Your task to perform on an android device: open app "Roku - Official Remote Control" Image 0: 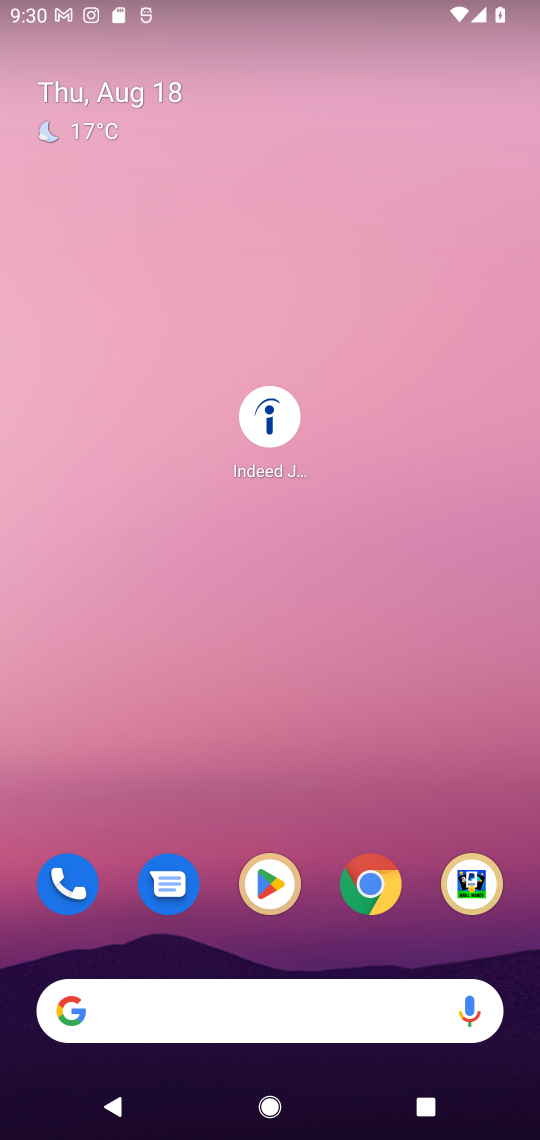
Step 0: drag from (241, 1023) to (295, 21)
Your task to perform on an android device: open app "Roku - Official Remote Control" Image 1: 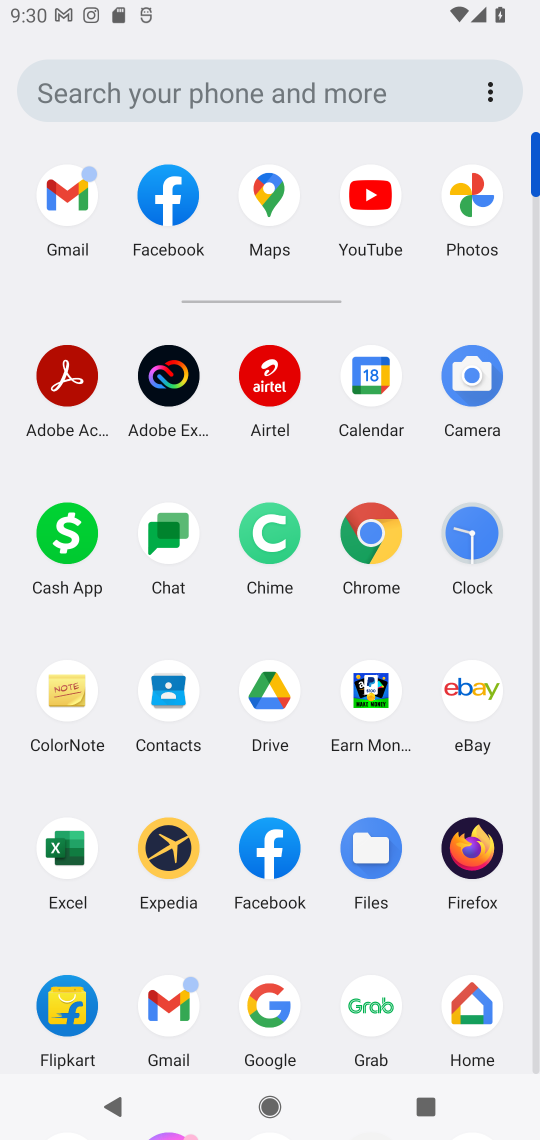
Step 1: drag from (217, 798) to (249, 378)
Your task to perform on an android device: open app "Roku - Official Remote Control" Image 2: 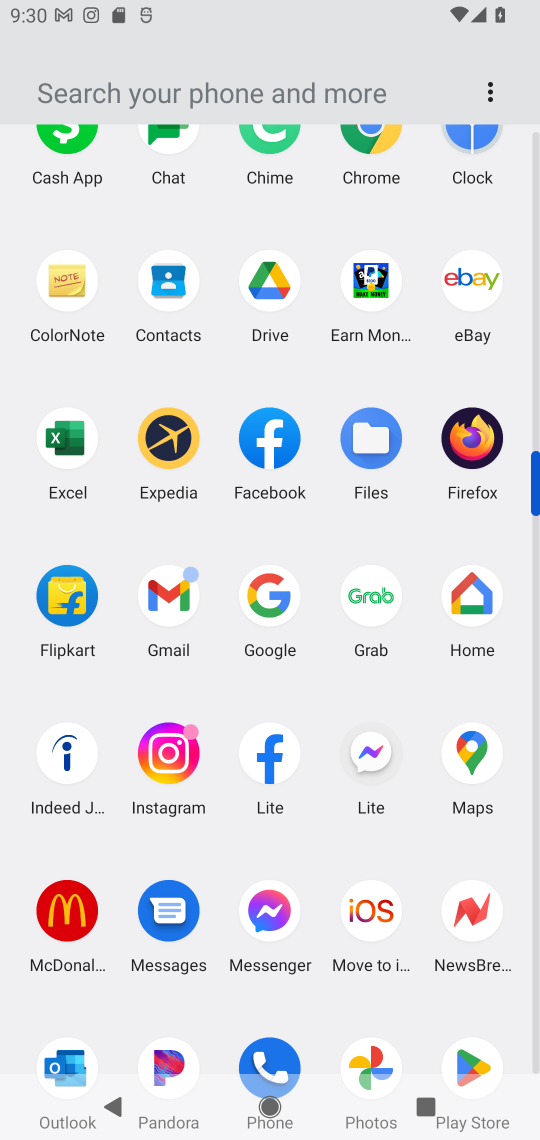
Step 2: drag from (224, 954) to (222, 583)
Your task to perform on an android device: open app "Roku - Official Remote Control" Image 3: 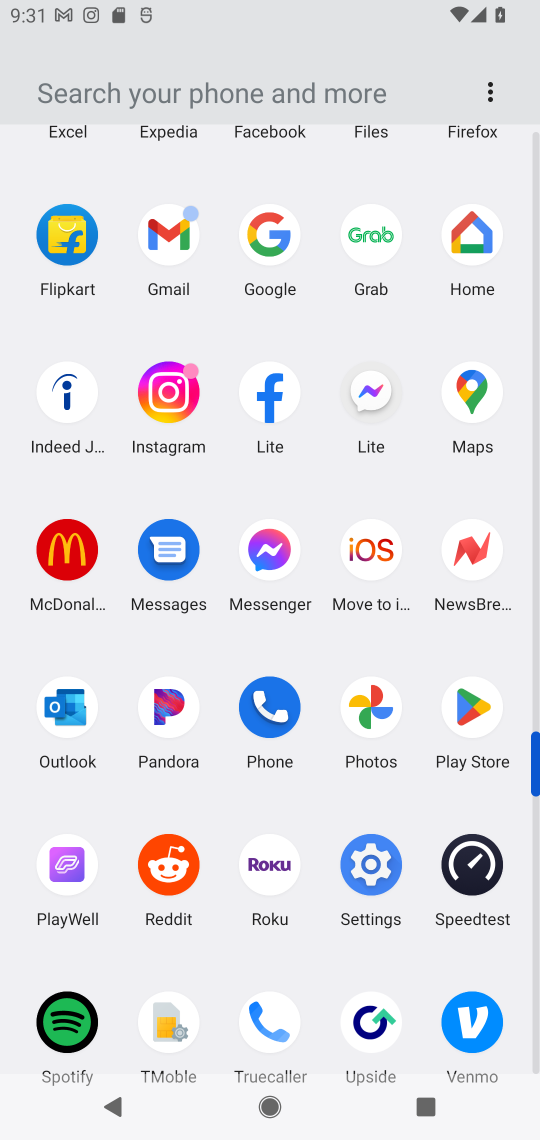
Step 3: click (473, 707)
Your task to perform on an android device: open app "Roku - Official Remote Control" Image 4: 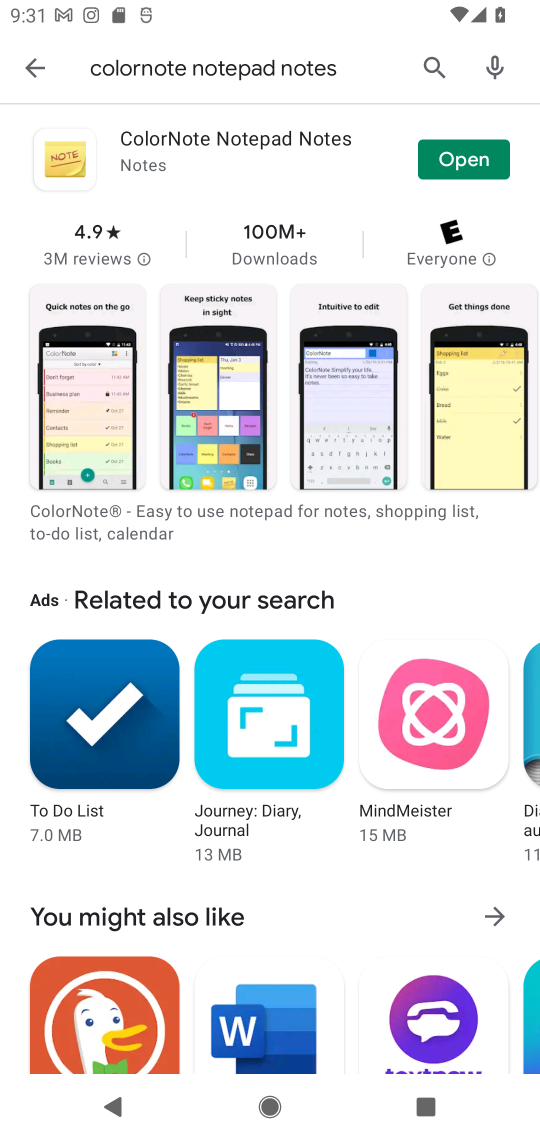
Step 4: press back button
Your task to perform on an android device: open app "Roku - Official Remote Control" Image 5: 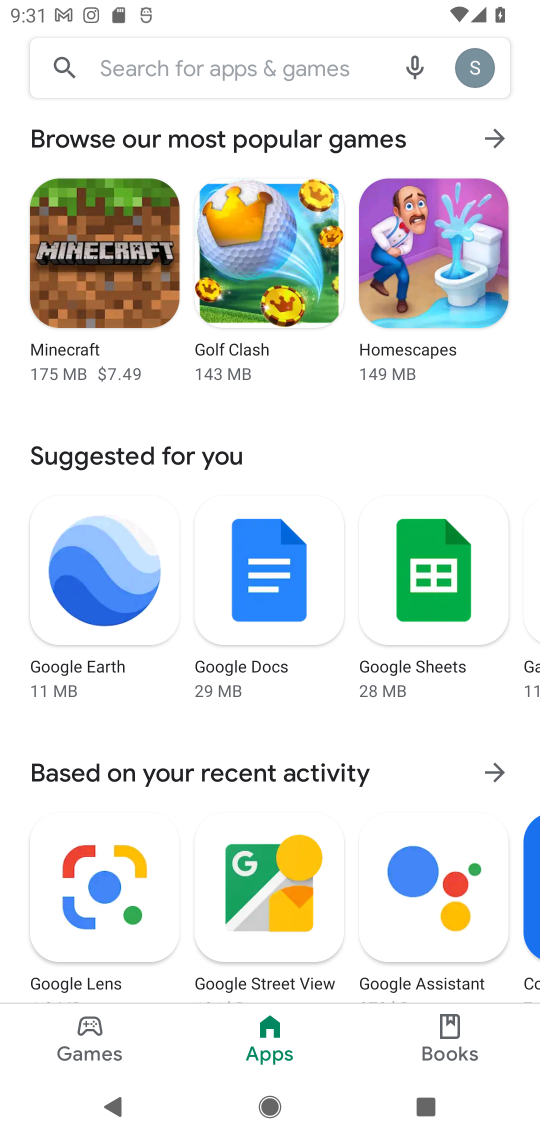
Step 5: click (301, 65)
Your task to perform on an android device: open app "Roku - Official Remote Control" Image 6: 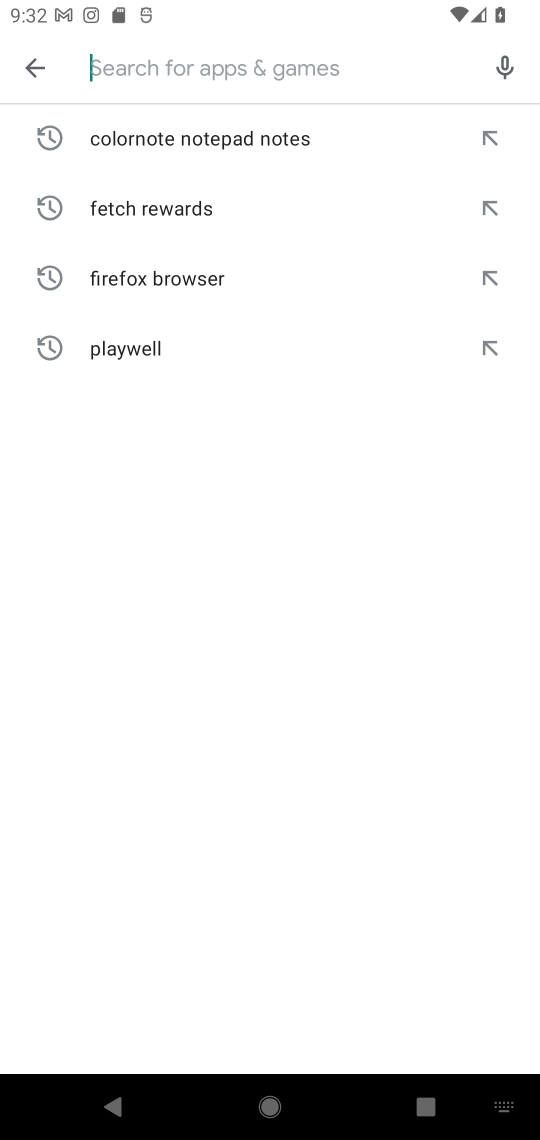
Step 6: type "Roku - Official Remote Control"
Your task to perform on an android device: open app "Roku - Official Remote Control" Image 7: 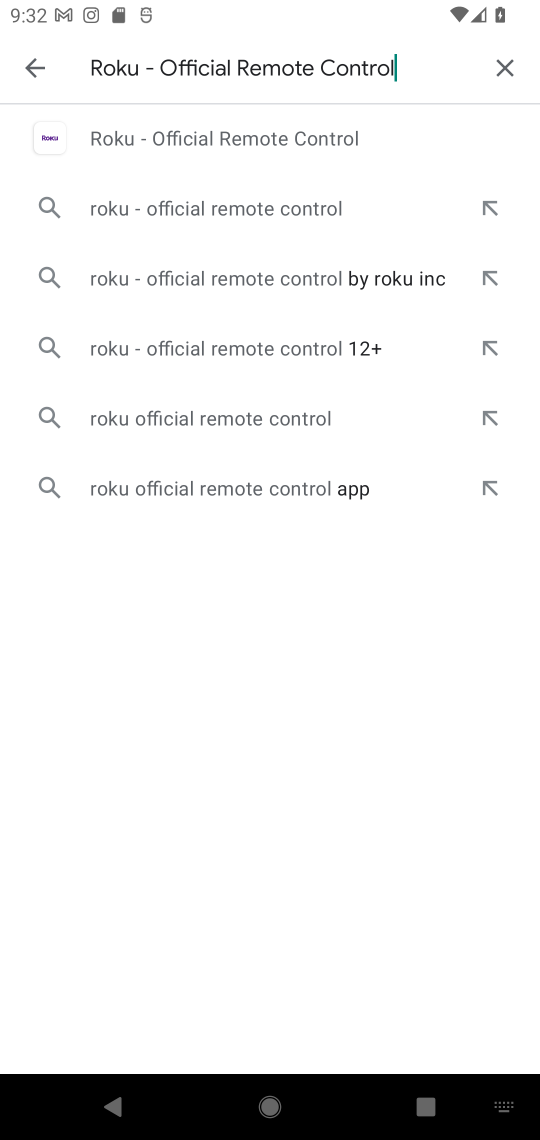
Step 7: click (236, 141)
Your task to perform on an android device: open app "Roku - Official Remote Control" Image 8: 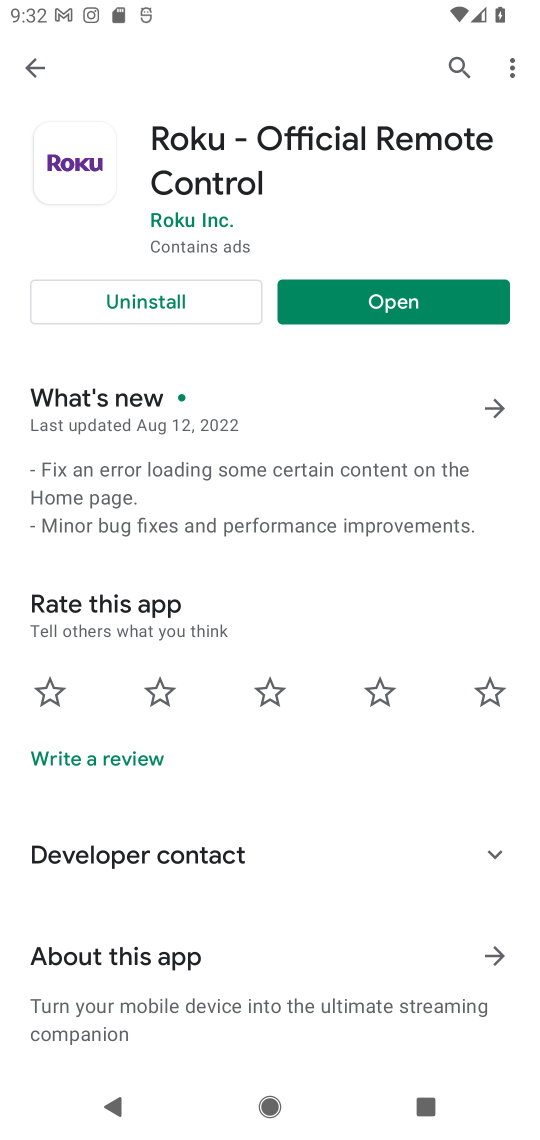
Step 8: click (394, 309)
Your task to perform on an android device: open app "Roku - Official Remote Control" Image 9: 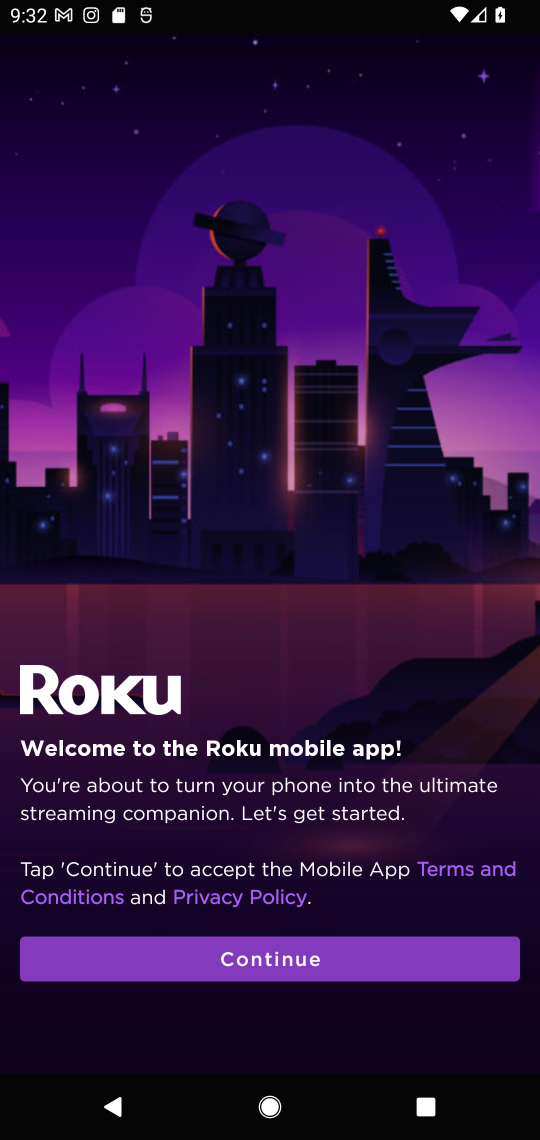
Step 9: task complete